Your task to perform on an android device: Open Youtube and go to "Your channel" Image 0: 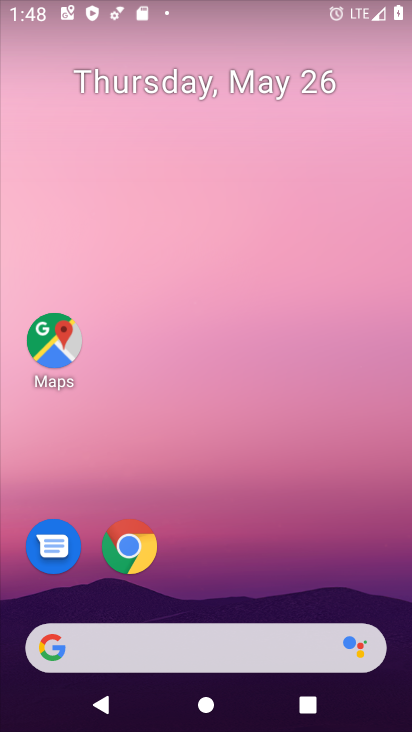
Step 0: drag from (389, 637) to (315, 71)
Your task to perform on an android device: Open Youtube and go to "Your channel" Image 1: 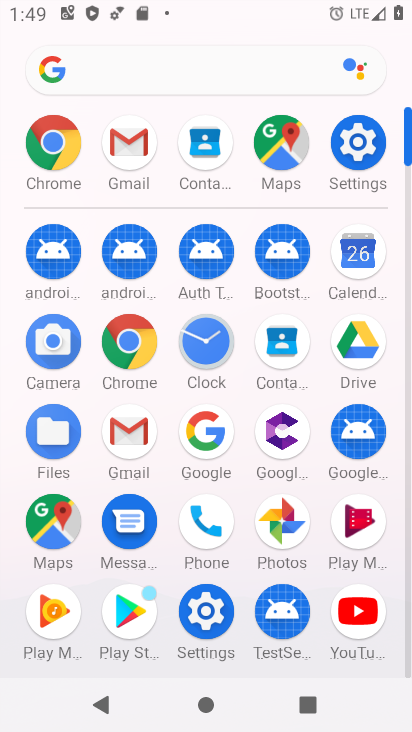
Step 1: click (367, 618)
Your task to perform on an android device: Open Youtube and go to "Your channel" Image 2: 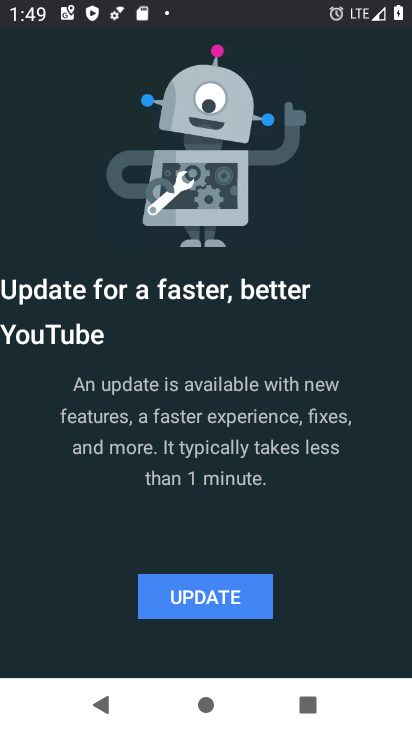
Step 2: press back button
Your task to perform on an android device: Open Youtube and go to "Your channel" Image 3: 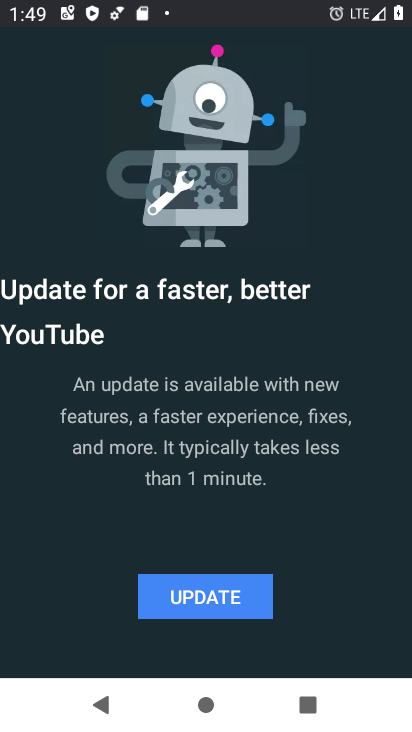
Step 3: press back button
Your task to perform on an android device: Open Youtube and go to "Your channel" Image 4: 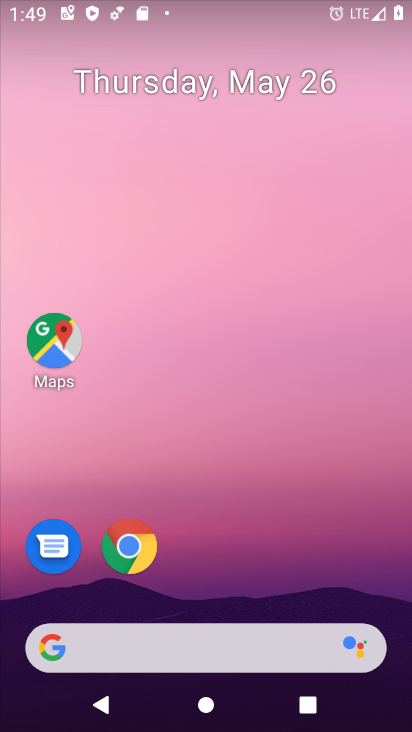
Step 4: drag from (396, 617) to (352, 15)
Your task to perform on an android device: Open Youtube and go to "Your channel" Image 5: 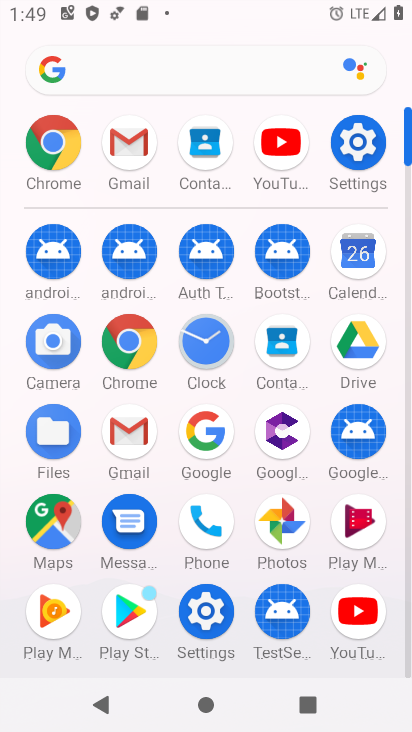
Step 5: click (366, 626)
Your task to perform on an android device: Open Youtube and go to "Your channel" Image 6: 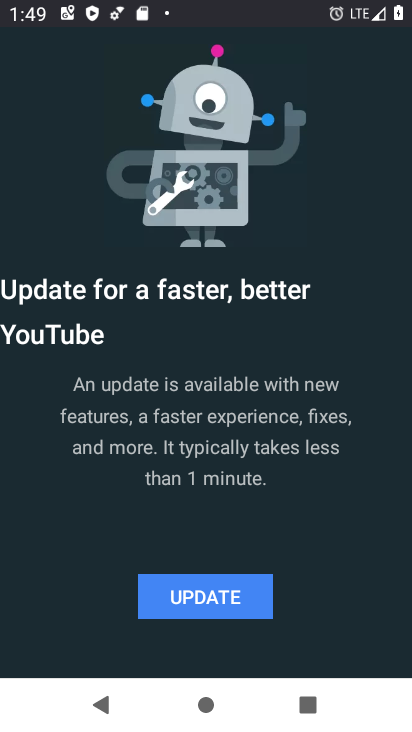
Step 6: click (167, 589)
Your task to perform on an android device: Open Youtube and go to "Your channel" Image 7: 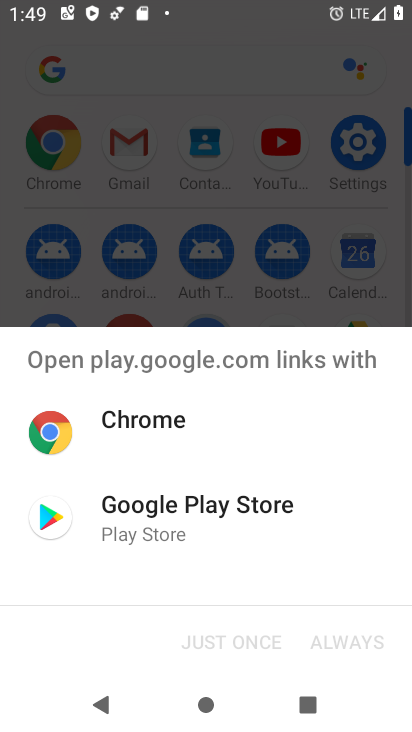
Step 7: click (186, 518)
Your task to perform on an android device: Open Youtube and go to "Your channel" Image 8: 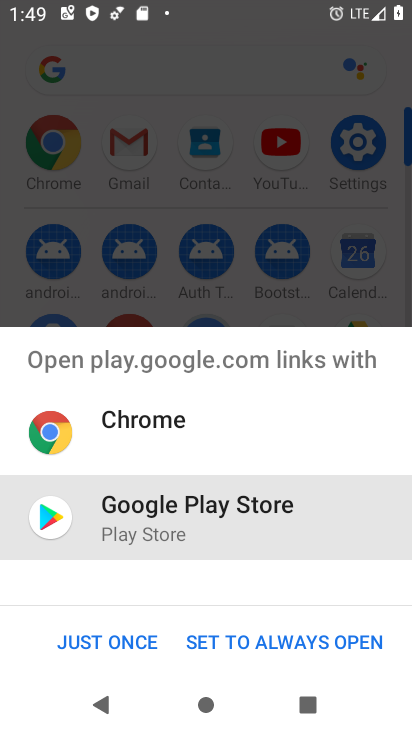
Step 8: click (101, 640)
Your task to perform on an android device: Open Youtube and go to "Your channel" Image 9: 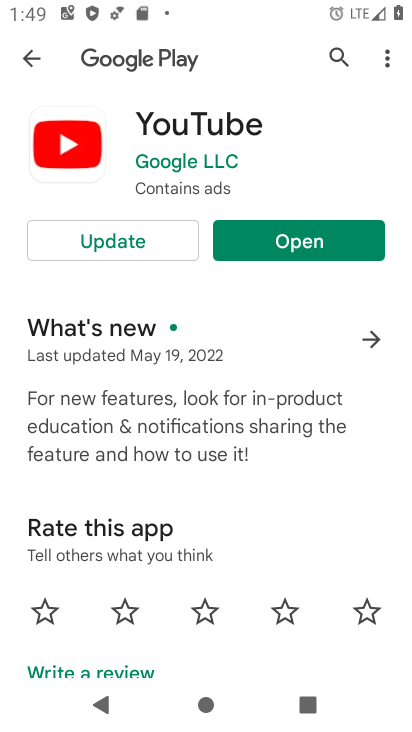
Step 9: click (149, 244)
Your task to perform on an android device: Open Youtube and go to "Your channel" Image 10: 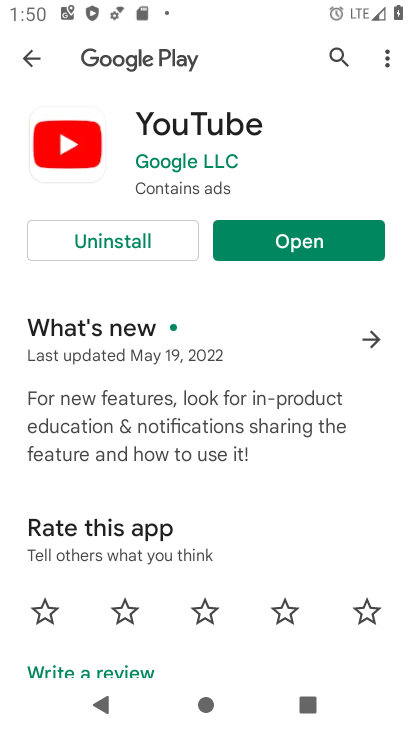
Step 10: click (272, 237)
Your task to perform on an android device: Open Youtube and go to "Your channel" Image 11: 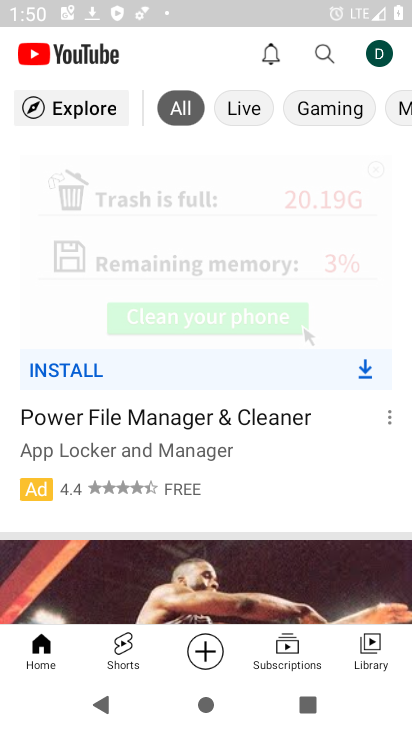
Step 11: click (380, 53)
Your task to perform on an android device: Open Youtube and go to "Your channel" Image 12: 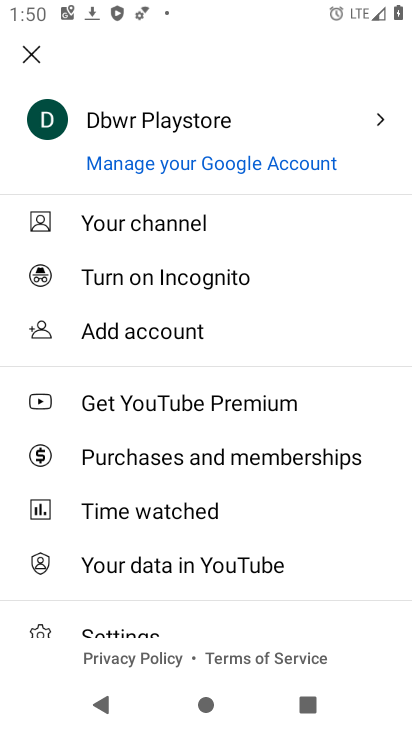
Step 12: click (127, 229)
Your task to perform on an android device: Open Youtube and go to "Your channel" Image 13: 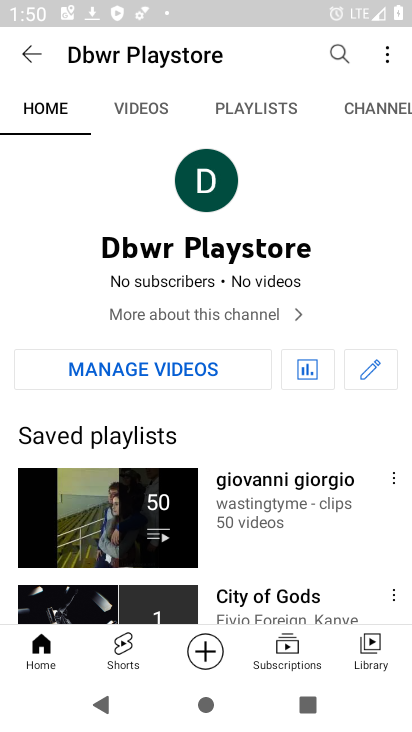
Step 13: task complete